Your task to perform on an android device: Empty the shopping cart on costco. Image 0: 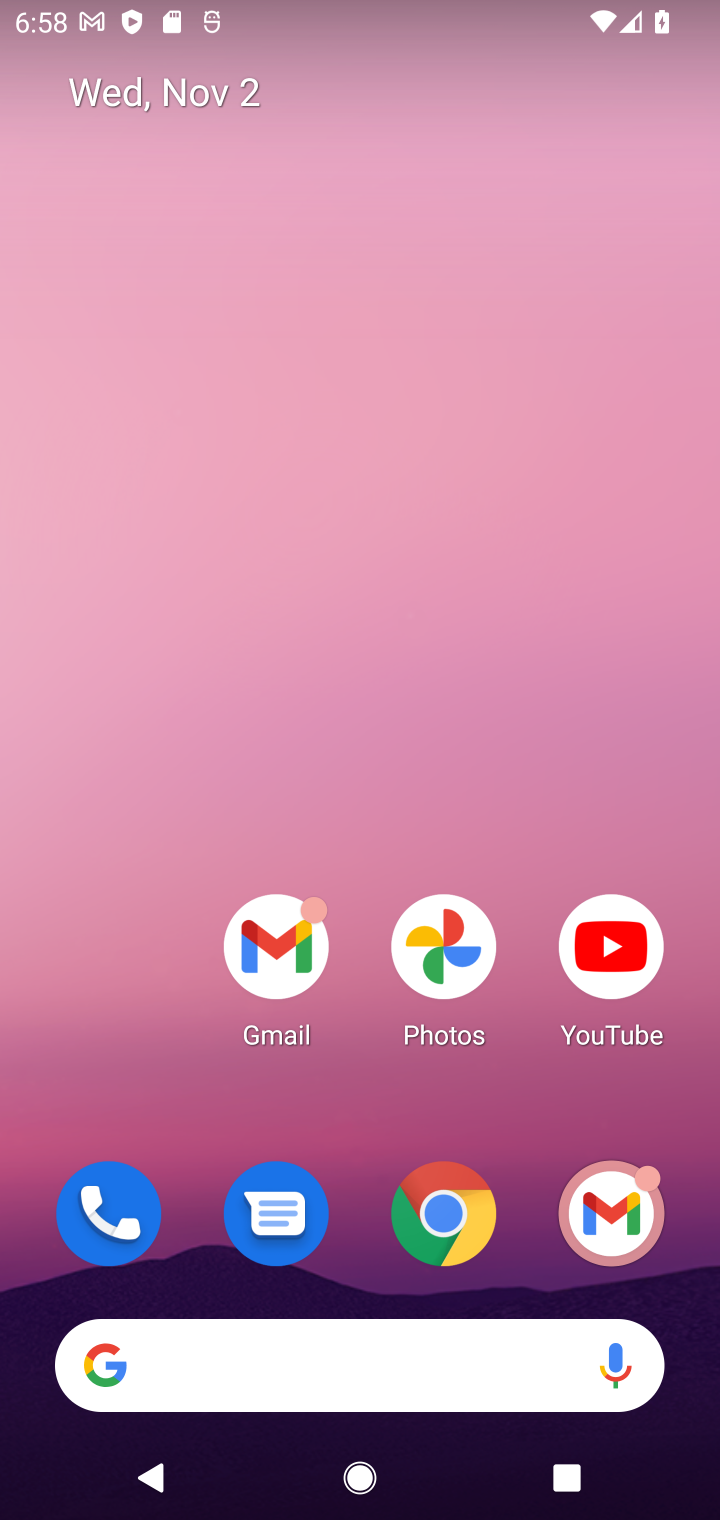
Step 0: click (434, 1217)
Your task to perform on an android device: Empty the shopping cart on costco. Image 1: 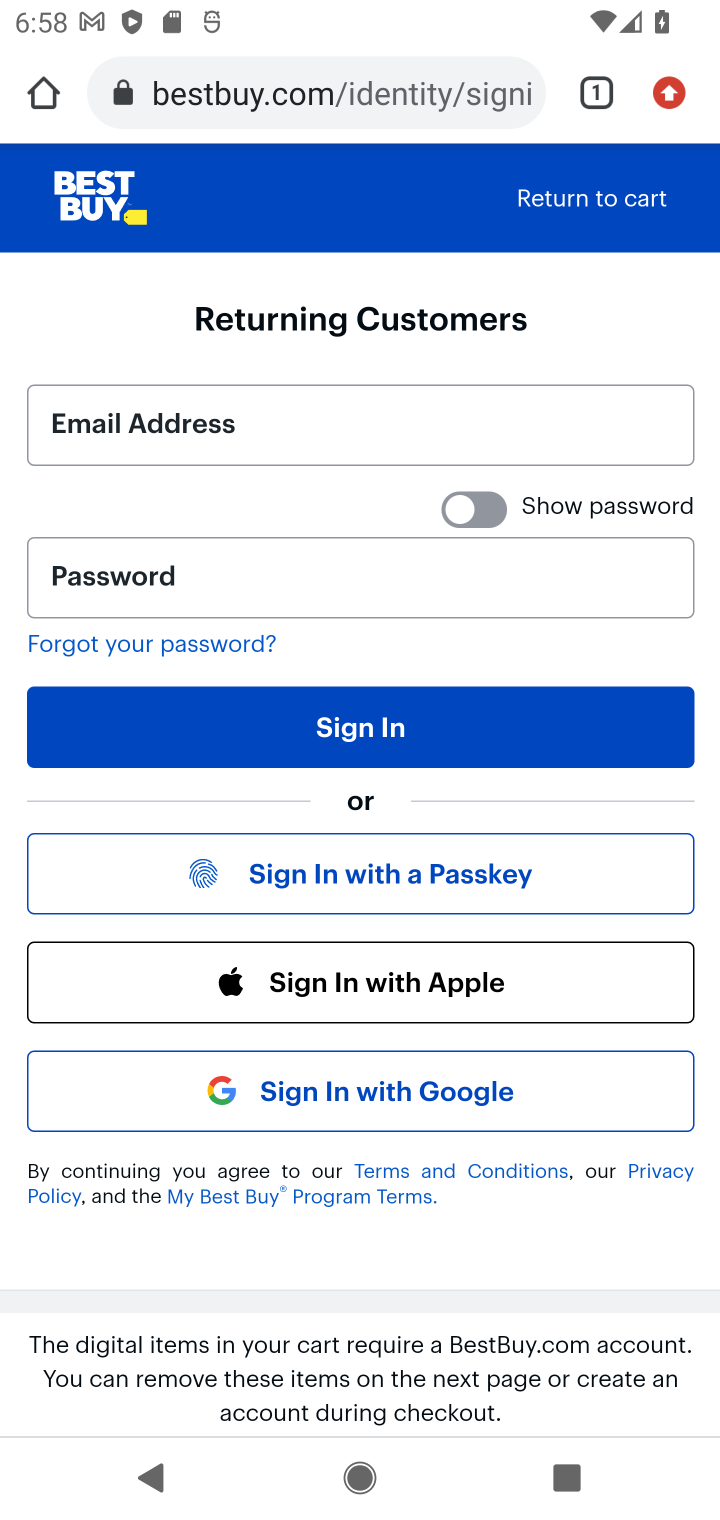
Step 1: click (327, 63)
Your task to perform on an android device: Empty the shopping cart on costco. Image 2: 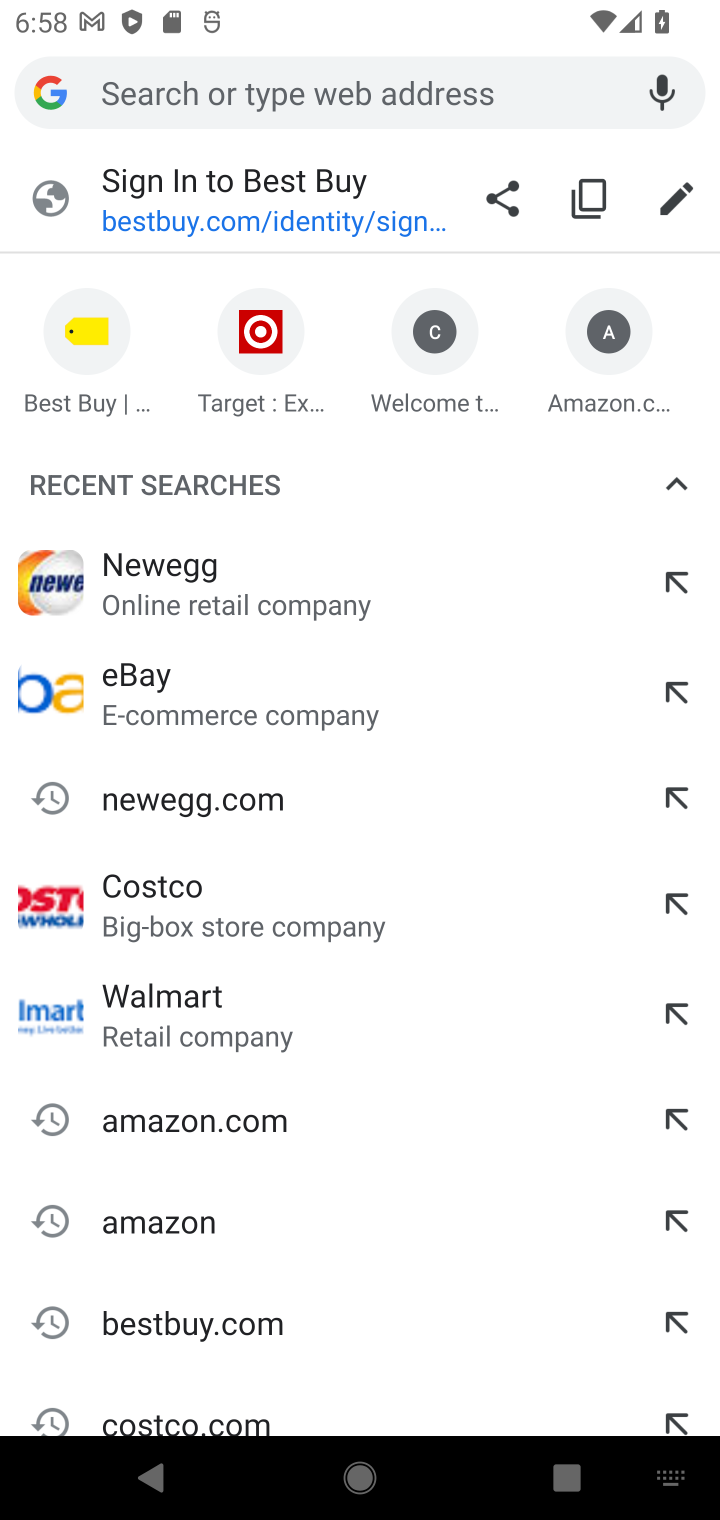
Step 2: type "costco"
Your task to perform on an android device: Empty the shopping cart on costco. Image 3: 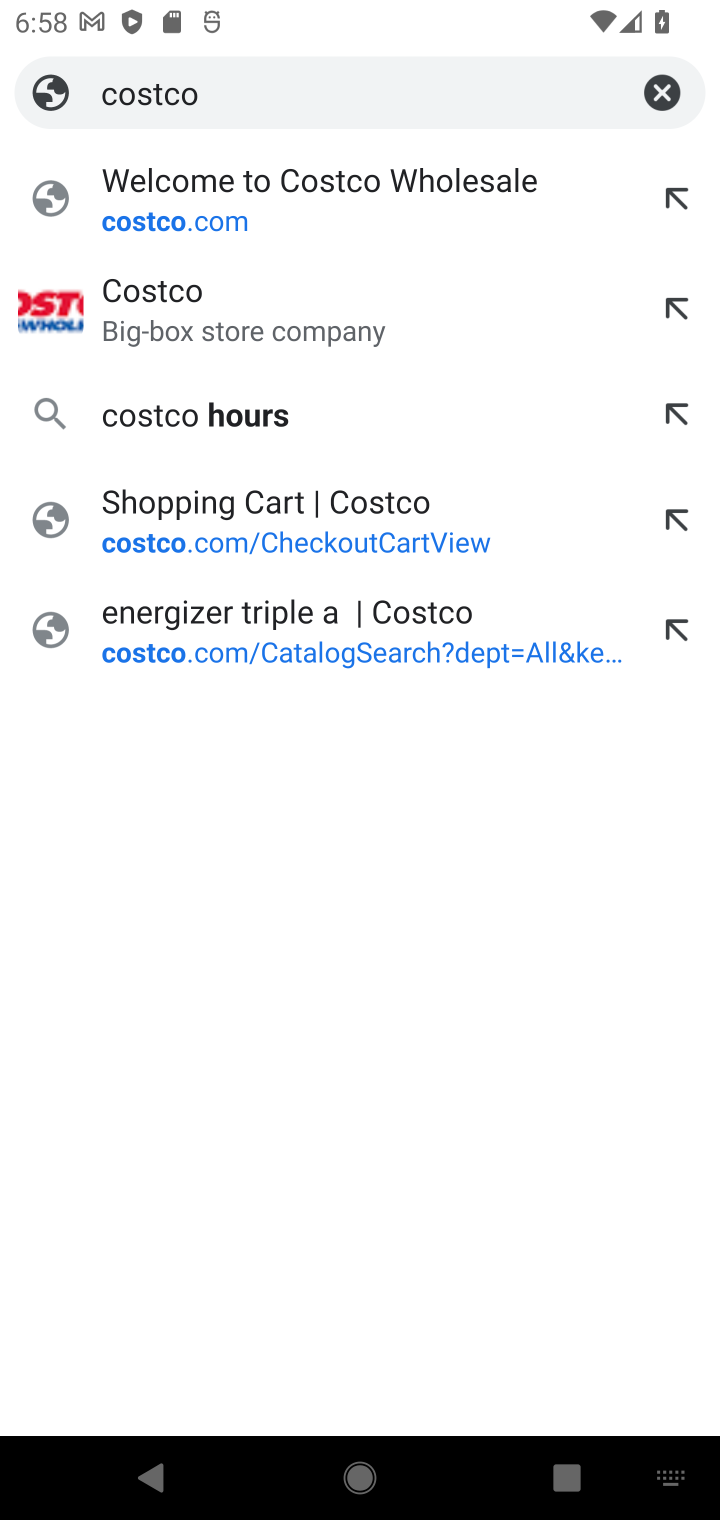
Step 3: click (151, 292)
Your task to perform on an android device: Empty the shopping cart on costco. Image 4: 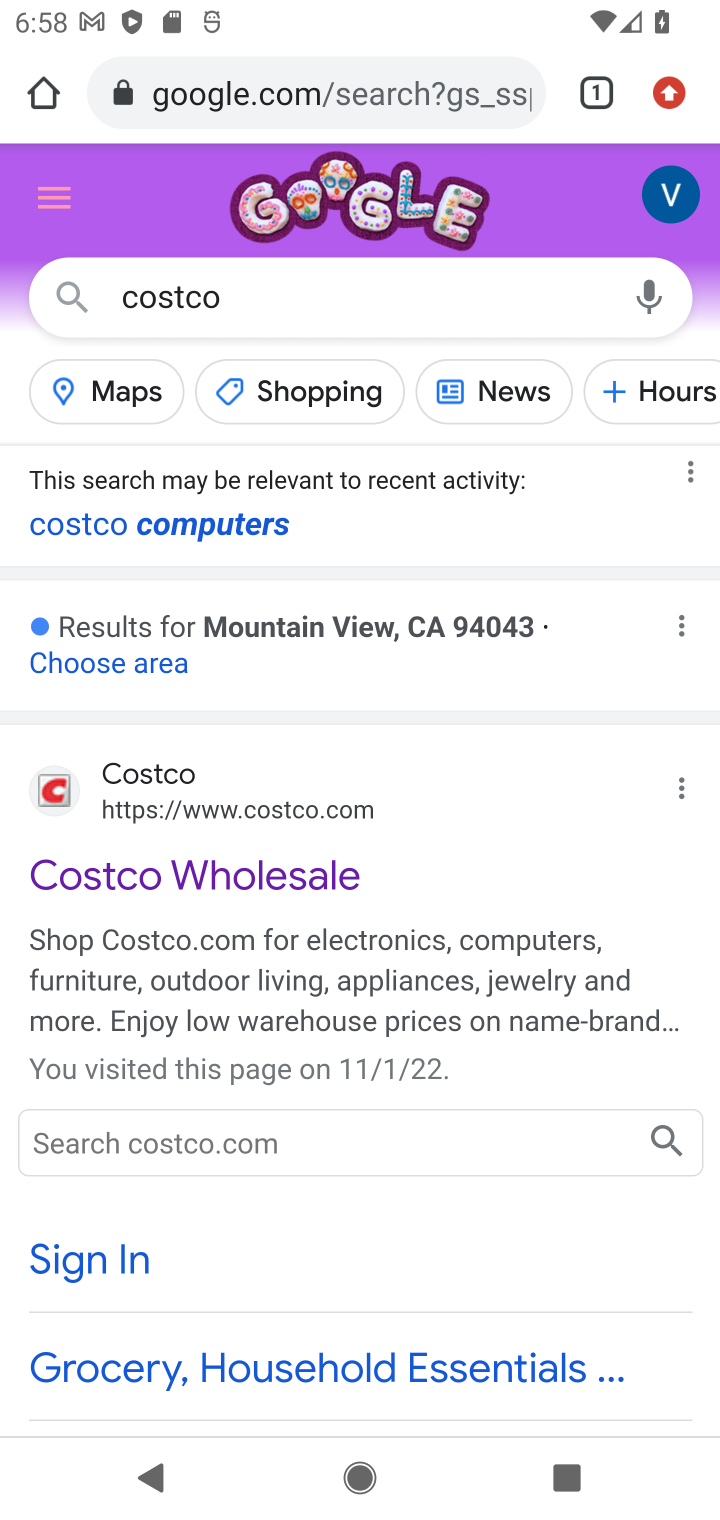
Step 4: click (220, 863)
Your task to perform on an android device: Empty the shopping cart on costco. Image 5: 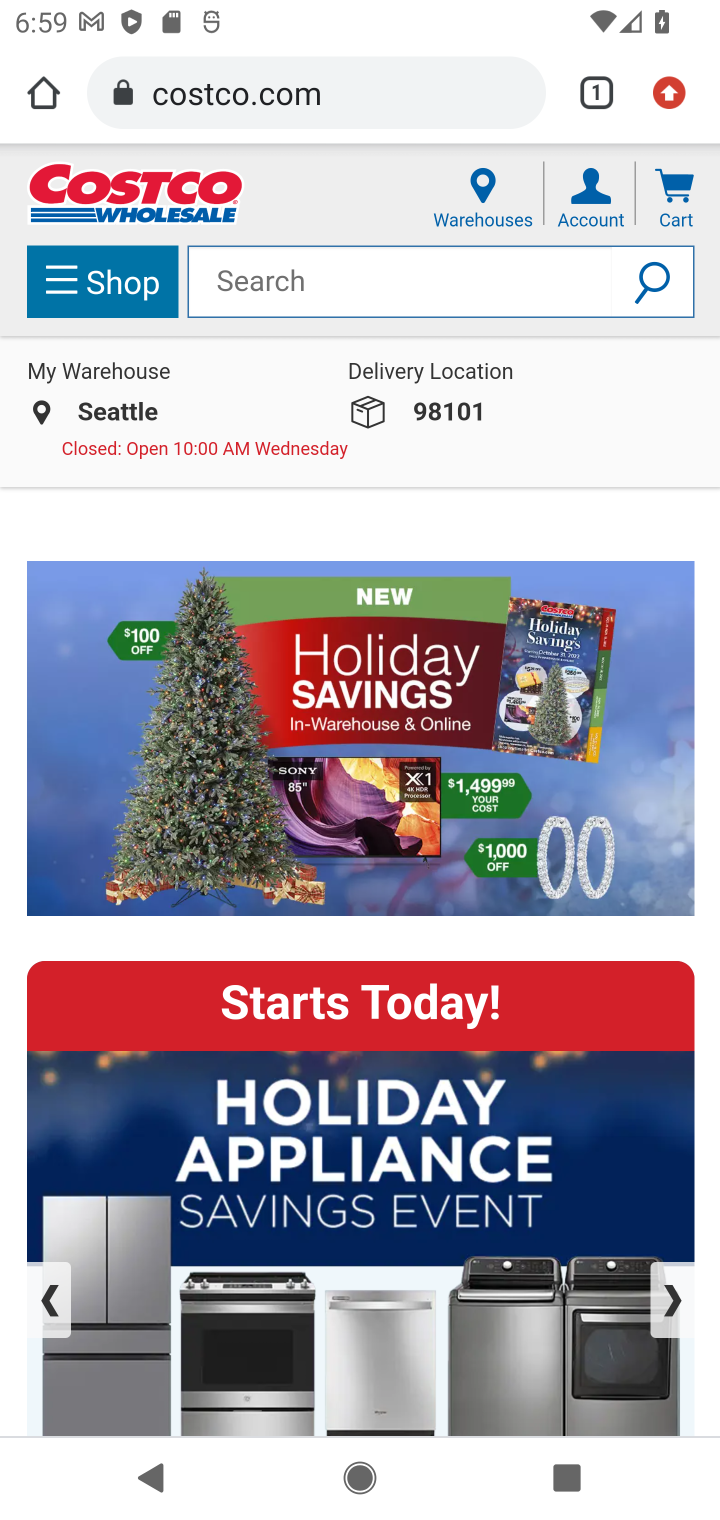
Step 5: click (672, 185)
Your task to perform on an android device: Empty the shopping cart on costco. Image 6: 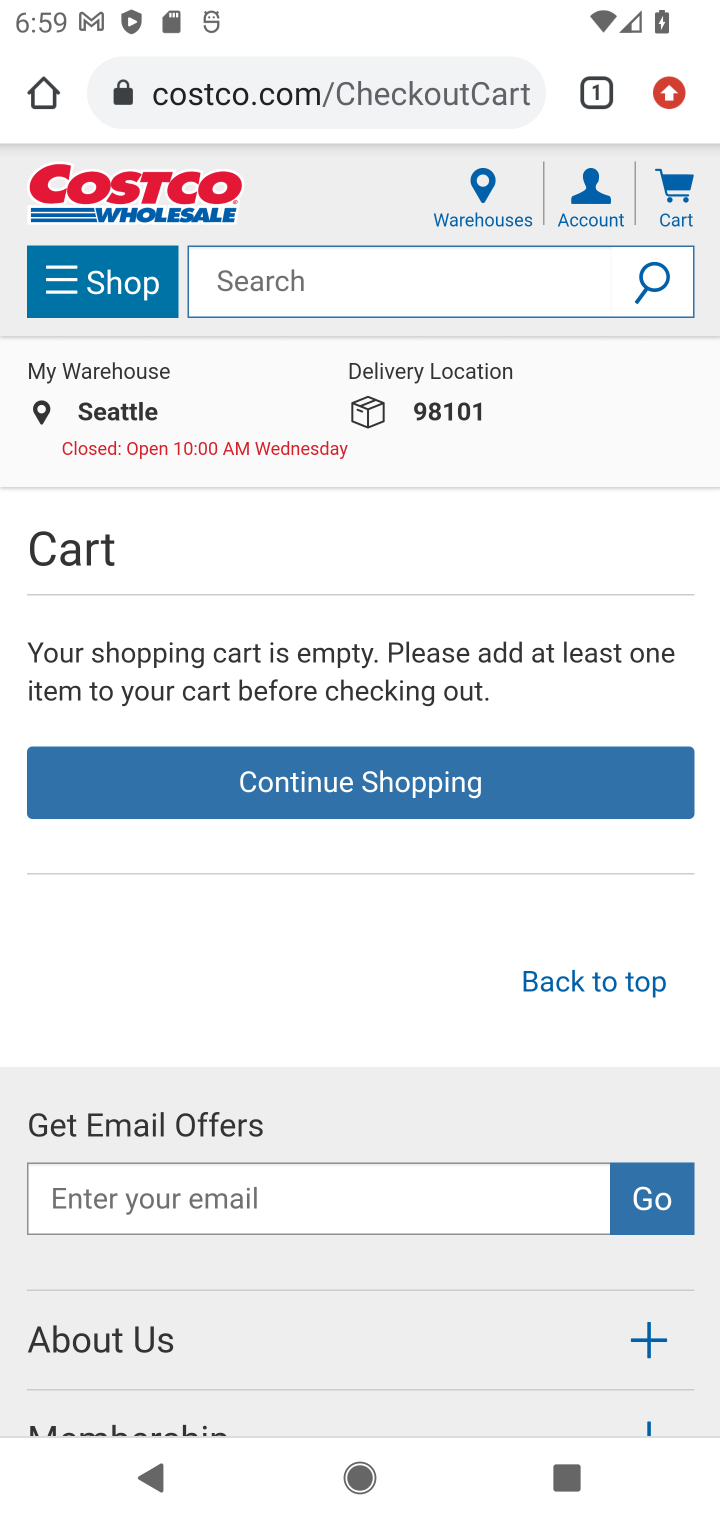
Step 6: task complete